Your task to perform on an android device: toggle improve location accuracy Image 0: 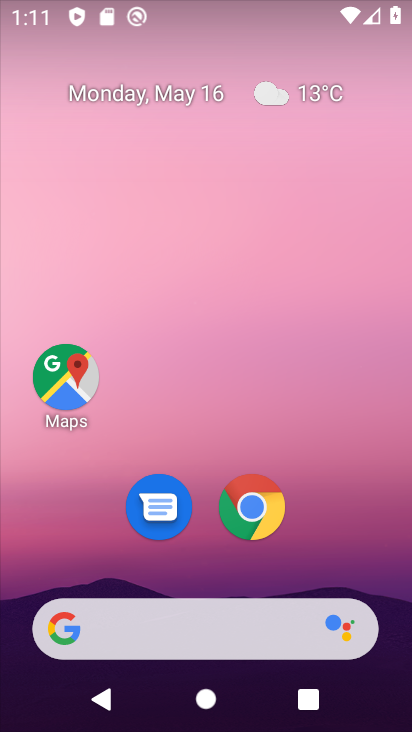
Step 0: drag from (208, 557) to (149, 47)
Your task to perform on an android device: toggle improve location accuracy Image 1: 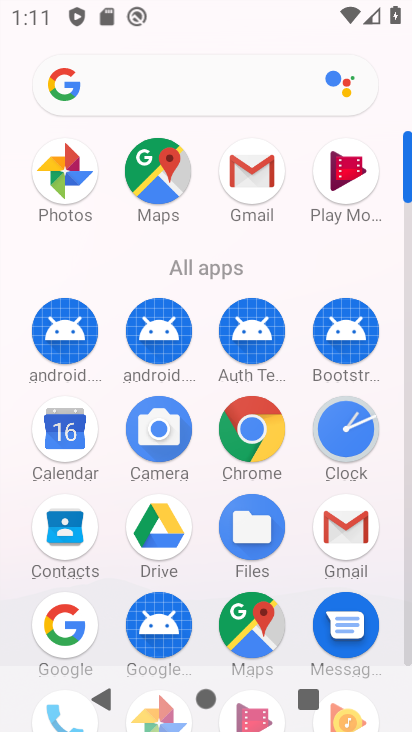
Step 1: drag from (212, 572) to (229, 149)
Your task to perform on an android device: toggle improve location accuracy Image 2: 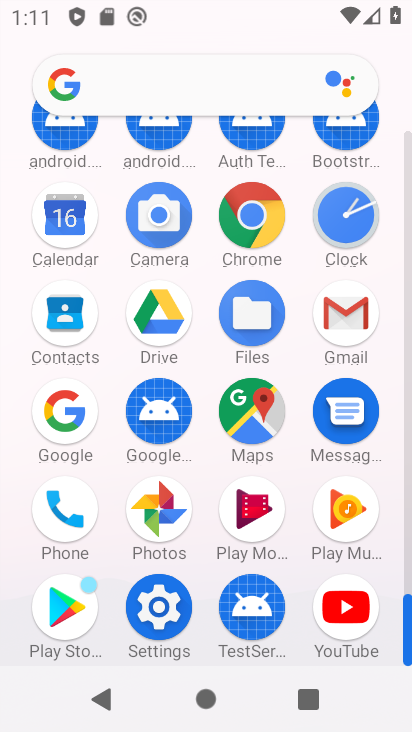
Step 2: click (151, 617)
Your task to perform on an android device: toggle improve location accuracy Image 3: 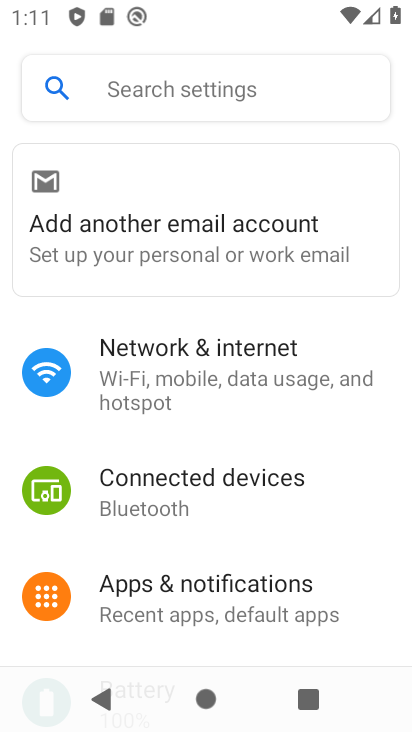
Step 3: drag from (214, 570) to (233, 9)
Your task to perform on an android device: toggle improve location accuracy Image 4: 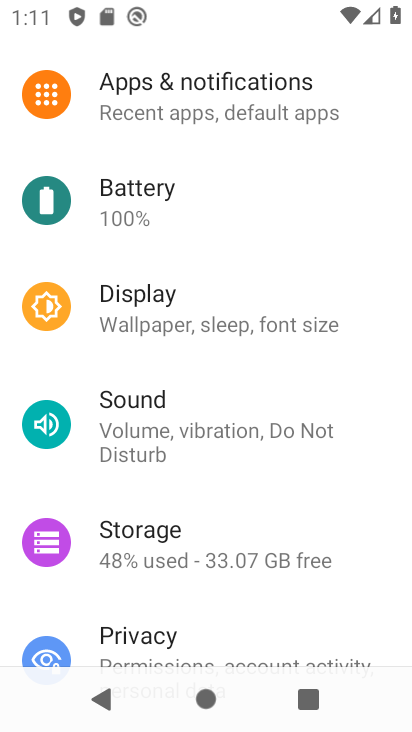
Step 4: drag from (148, 546) to (198, 52)
Your task to perform on an android device: toggle improve location accuracy Image 5: 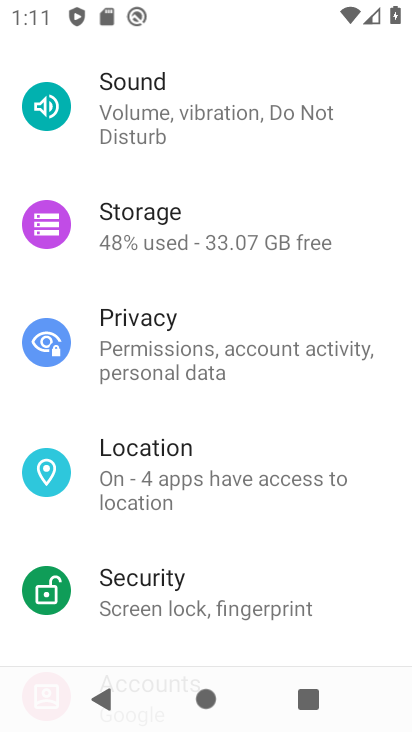
Step 5: click (177, 469)
Your task to perform on an android device: toggle improve location accuracy Image 6: 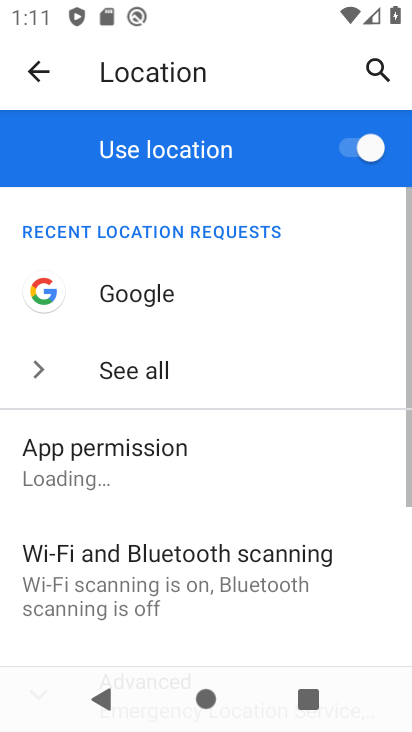
Step 6: drag from (273, 511) to (256, 43)
Your task to perform on an android device: toggle improve location accuracy Image 7: 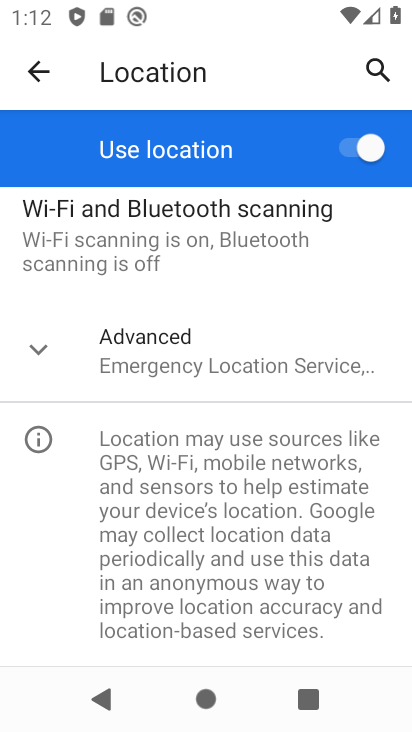
Step 7: click (168, 335)
Your task to perform on an android device: toggle improve location accuracy Image 8: 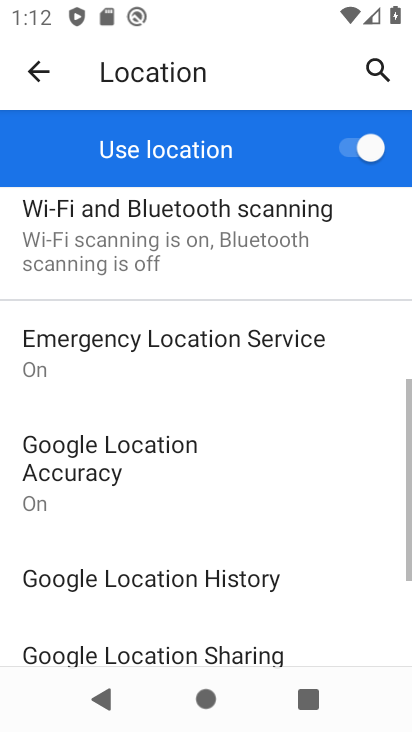
Step 8: drag from (217, 553) to (207, 421)
Your task to perform on an android device: toggle improve location accuracy Image 9: 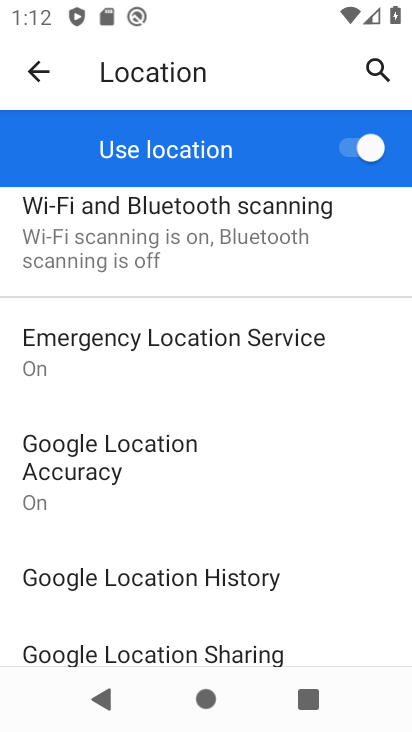
Step 9: click (159, 456)
Your task to perform on an android device: toggle improve location accuracy Image 10: 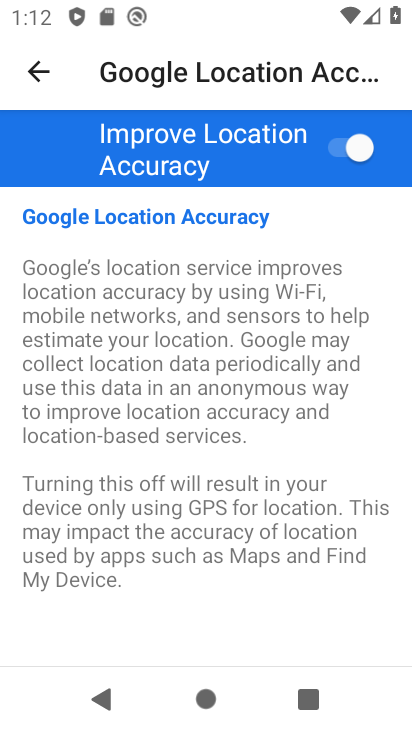
Step 10: click (355, 131)
Your task to perform on an android device: toggle improve location accuracy Image 11: 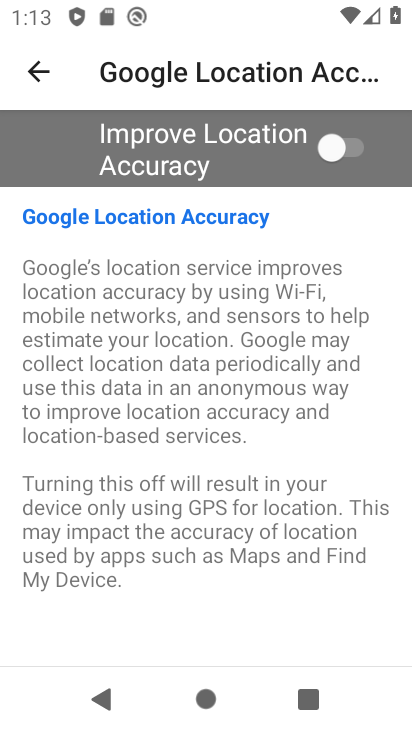
Step 11: task complete